Your task to perform on an android device: turn on translation in the chrome app Image 0: 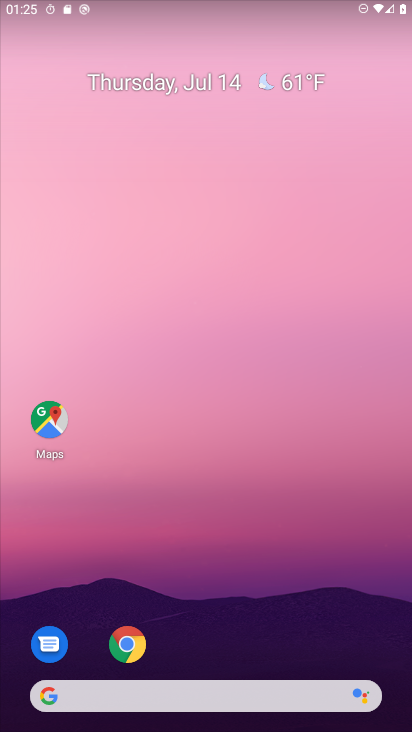
Step 0: drag from (275, 627) to (249, 154)
Your task to perform on an android device: turn on translation in the chrome app Image 1: 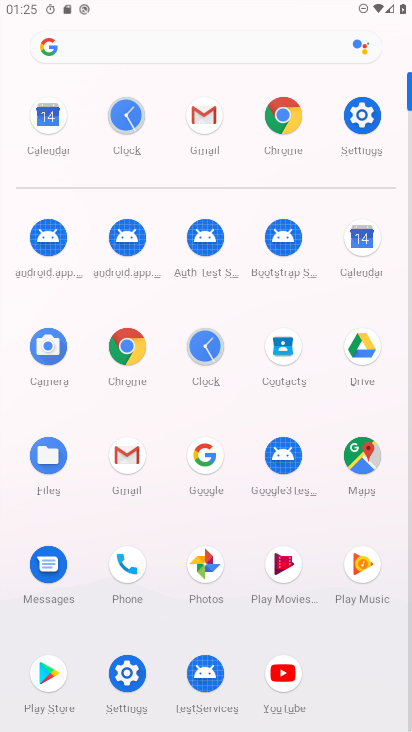
Step 1: click (278, 119)
Your task to perform on an android device: turn on translation in the chrome app Image 2: 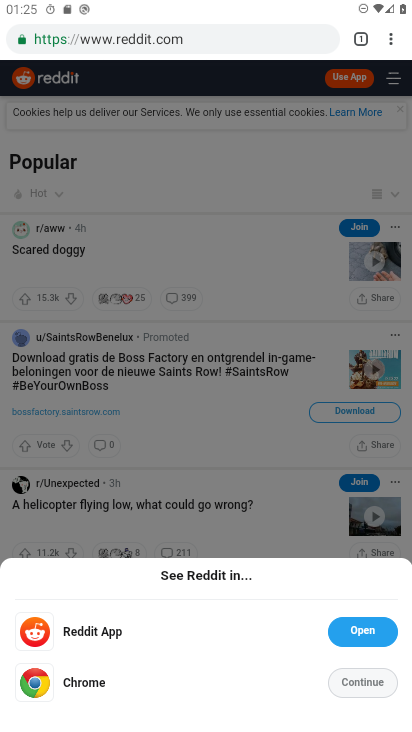
Step 2: drag from (396, 32) to (267, 465)
Your task to perform on an android device: turn on translation in the chrome app Image 3: 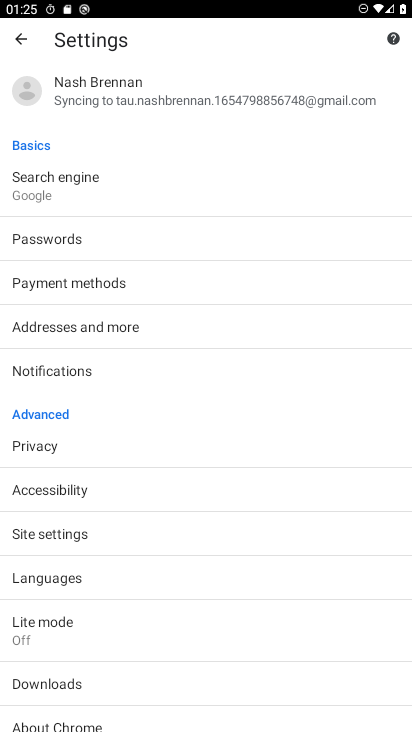
Step 3: click (64, 584)
Your task to perform on an android device: turn on translation in the chrome app Image 4: 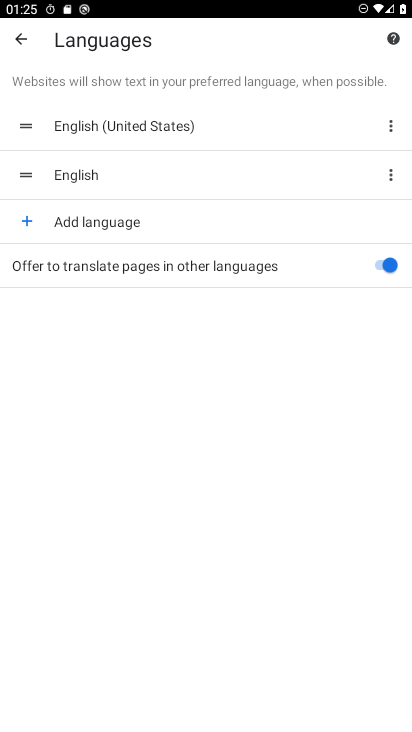
Step 4: task complete